Your task to perform on an android device: change the clock style Image 0: 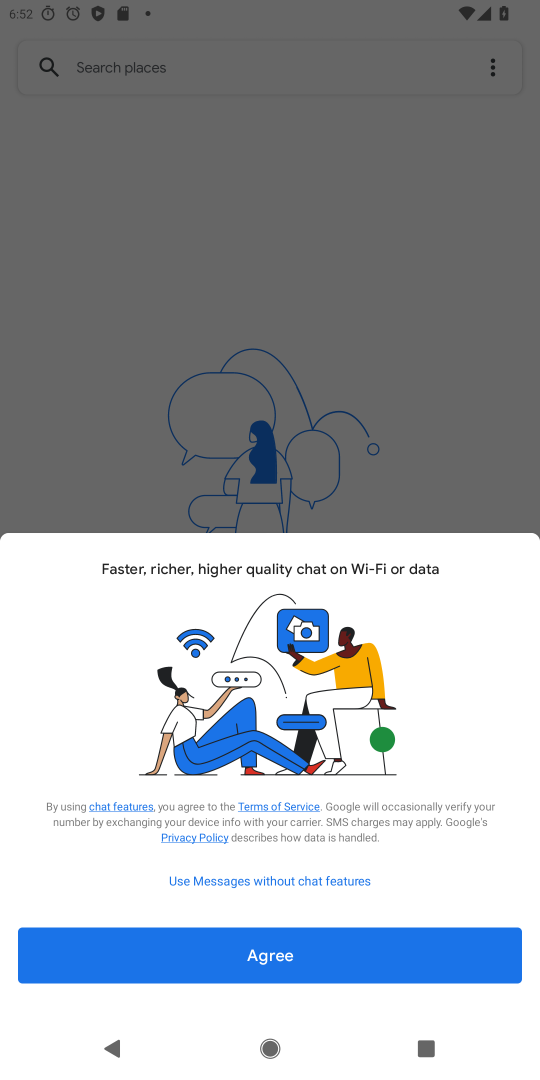
Step 0: press home button
Your task to perform on an android device: change the clock style Image 1: 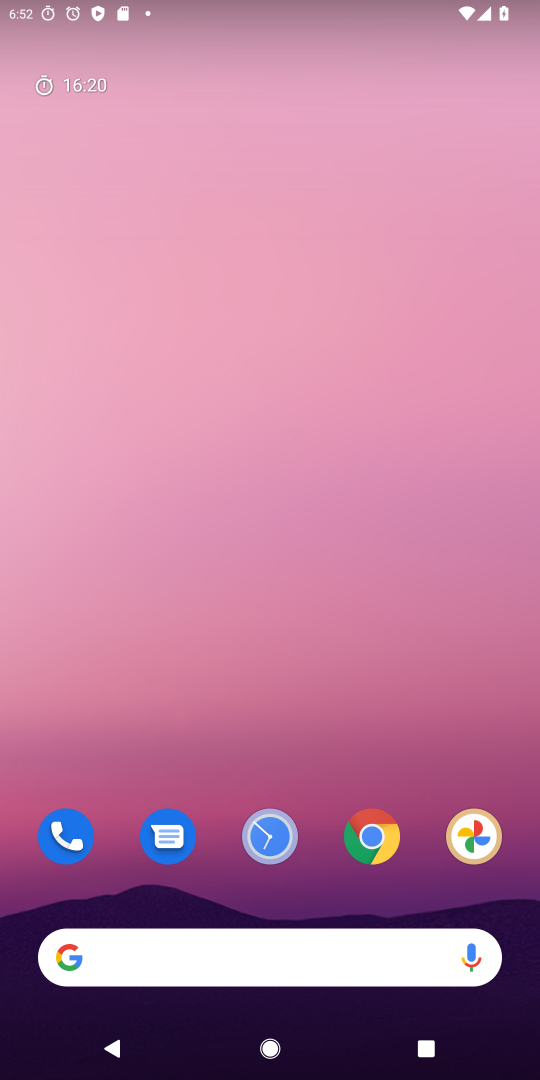
Step 1: drag from (357, 620) to (368, 13)
Your task to perform on an android device: change the clock style Image 2: 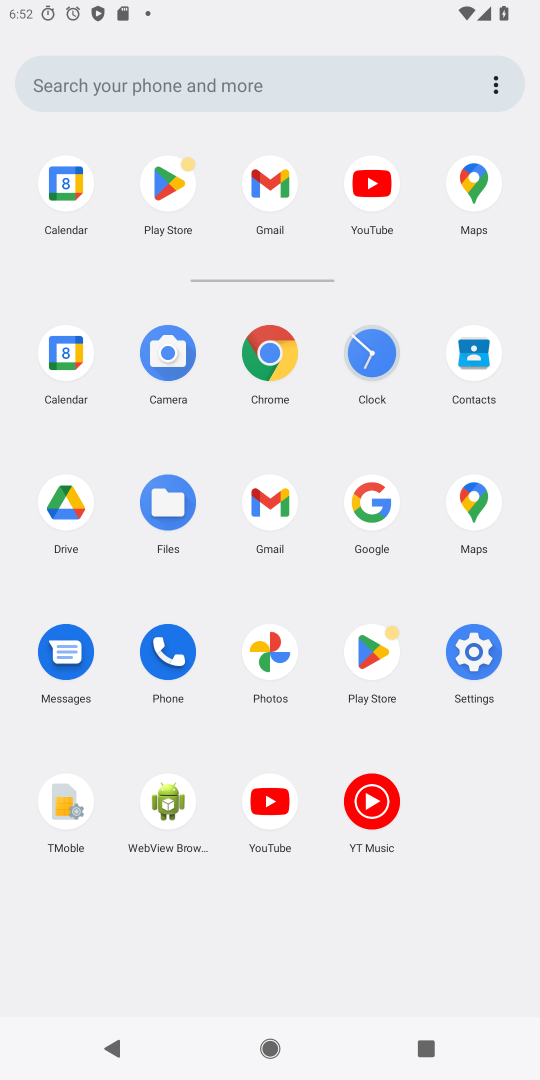
Step 2: click (391, 354)
Your task to perform on an android device: change the clock style Image 3: 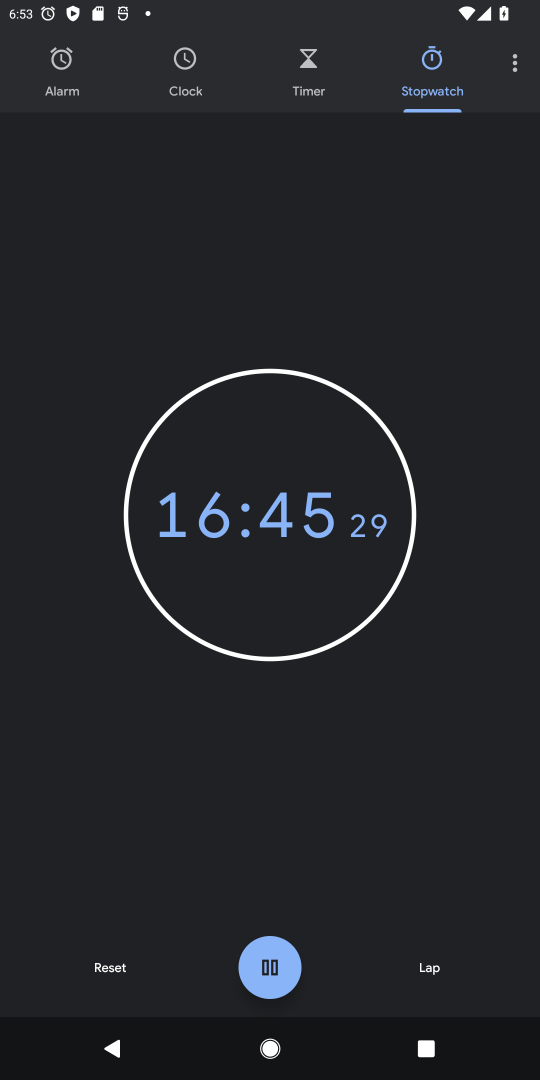
Step 3: click (522, 74)
Your task to perform on an android device: change the clock style Image 4: 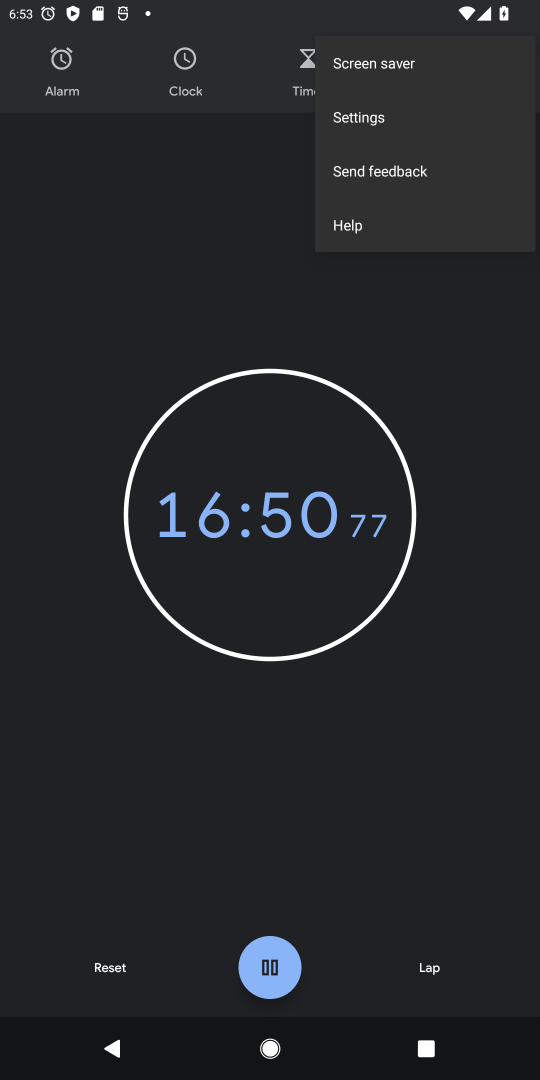
Step 4: click (392, 119)
Your task to perform on an android device: change the clock style Image 5: 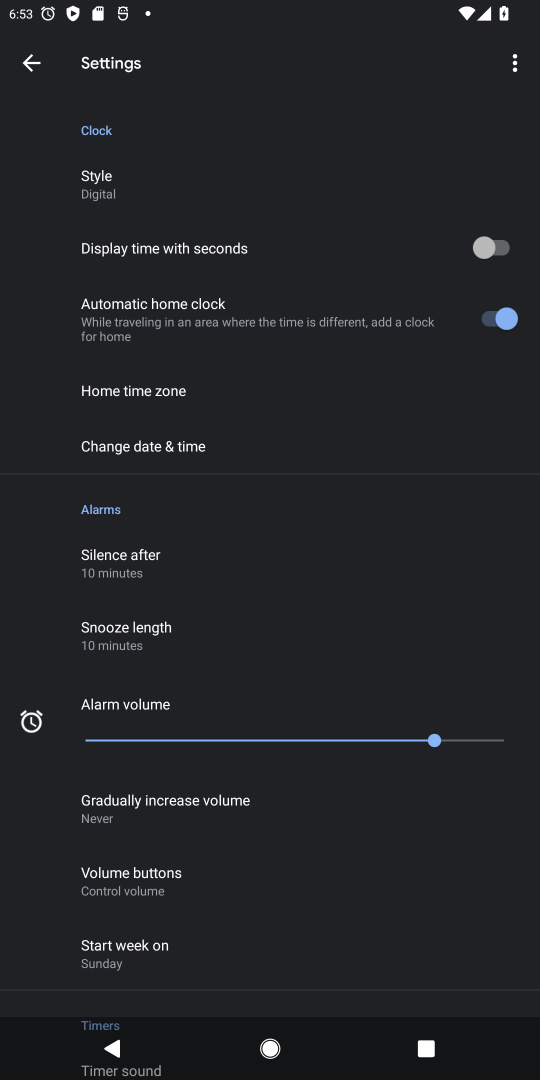
Step 5: click (208, 190)
Your task to perform on an android device: change the clock style Image 6: 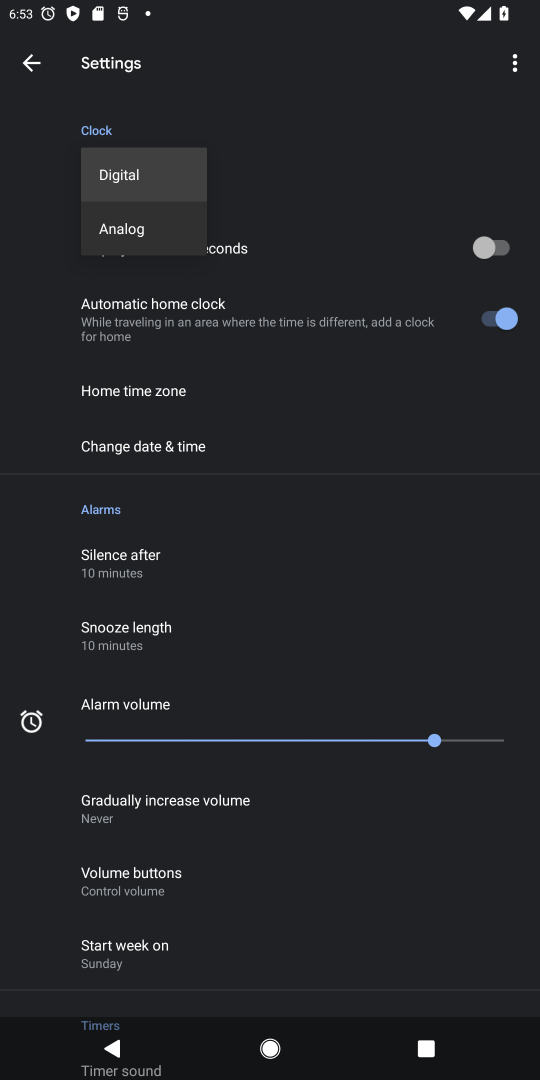
Step 6: click (165, 234)
Your task to perform on an android device: change the clock style Image 7: 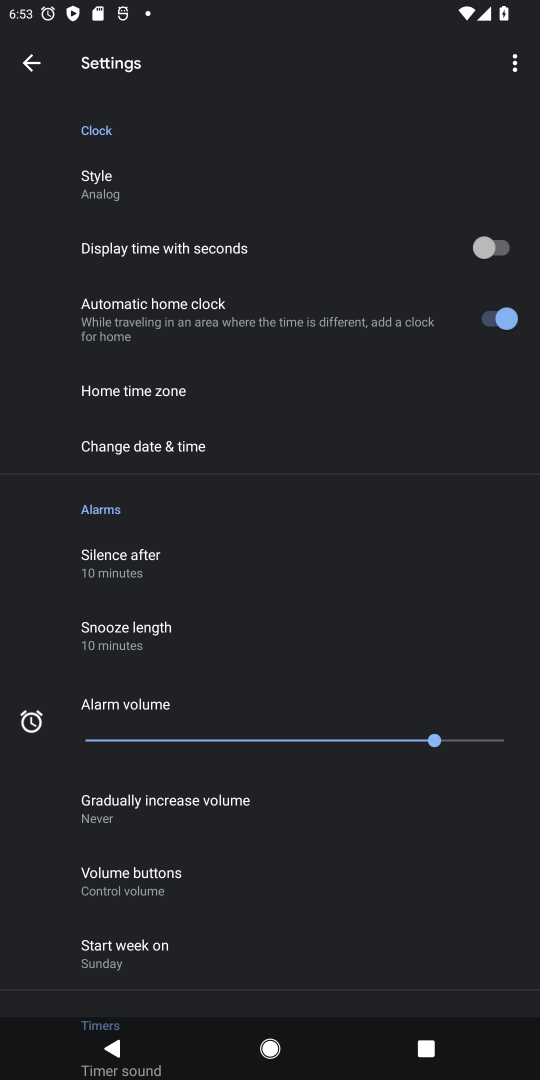
Step 7: task complete